Your task to perform on an android device: Open Amazon Image 0: 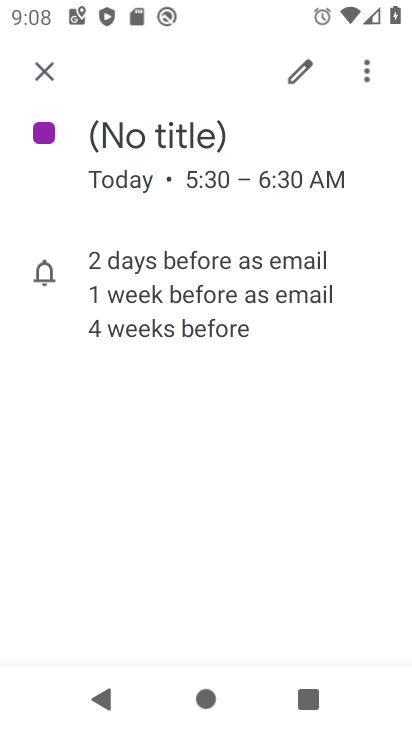
Step 0: press home button
Your task to perform on an android device: Open Amazon Image 1: 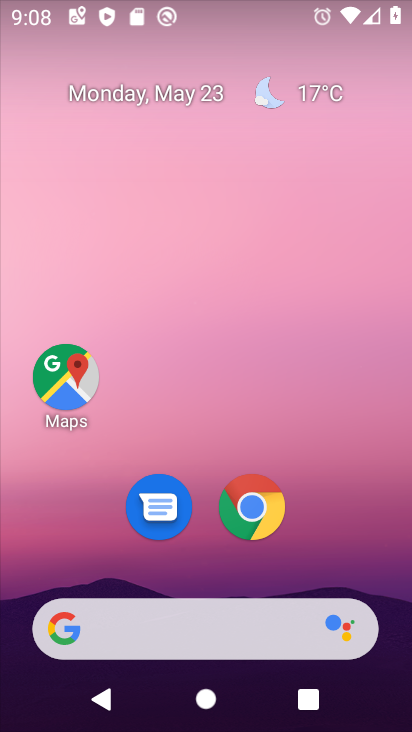
Step 1: click (265, 511)
Your task to perform on an android device: Open Amazon Image 2: 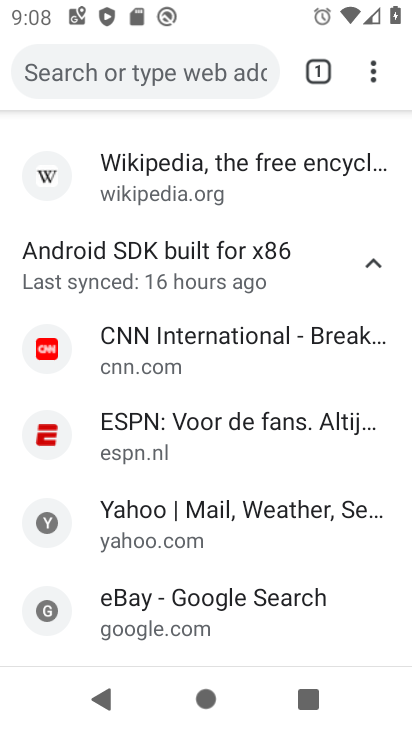
Step 2: click (108, 81)
Your task to perform on an android device: Open Amazon Image 3: 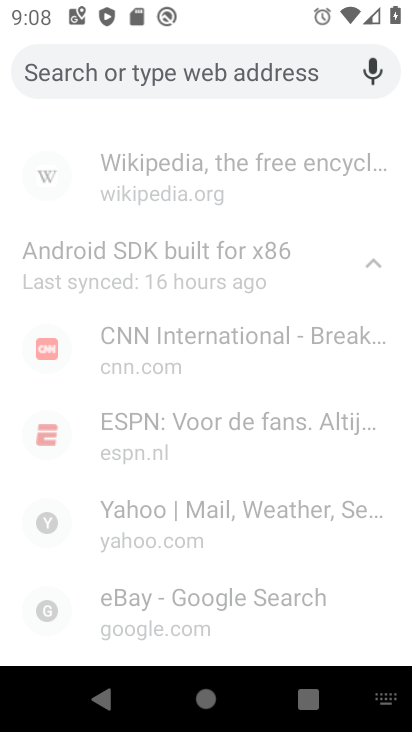
Step 3: type "amazon"
Your task to perform on an android device: Open Amazon Image 4: 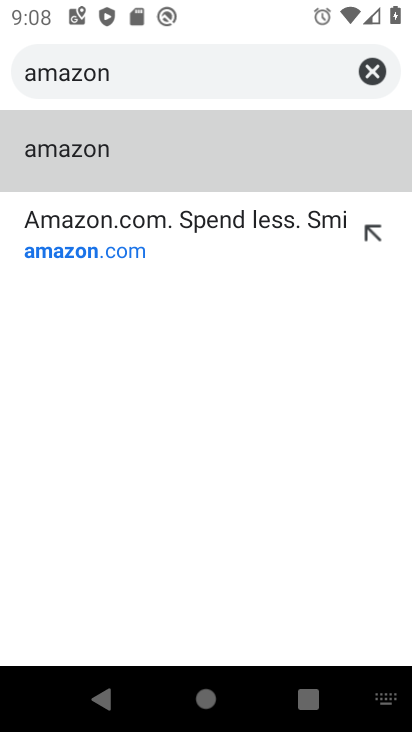
Step 4: click (83, 156)
Your task to perform on an android device: Open Amazon Image 5: 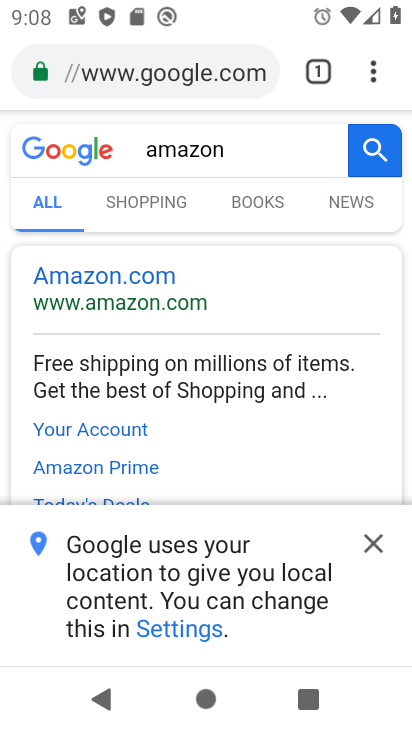
Step 5: click (78, 309)
Your task to perform on an android device: Open Amazon Image 6: 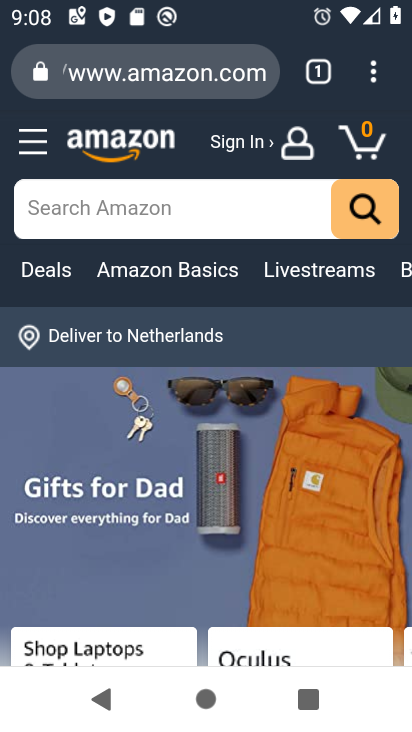
Step 6: task complete